Your task to perform on an android device: toggle data saver in the chrome app Image 0: 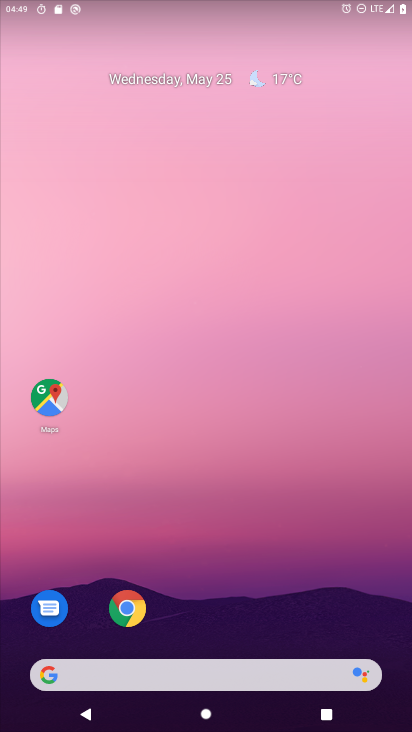
Step 0: click (123, 600)
Your task to perform on an android device: toggle data saver in the chrome app Image 1: 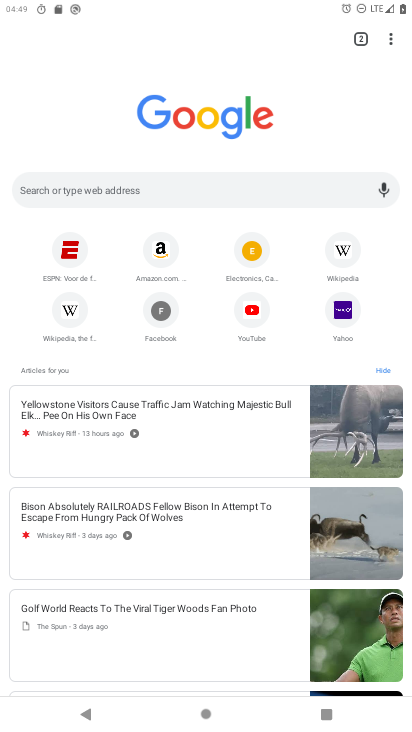
Step 1: click (398, 30)
Your task to perform on an android device: toggle data saver in the chrome app Image 2: 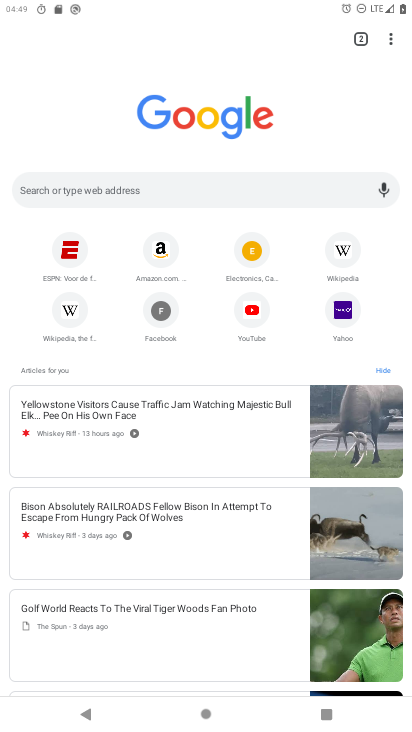
Step 2: drag from (394, 38) to (272, 325)
Your task to perform on an android device: toggle data saver in the chrome app Image 3: 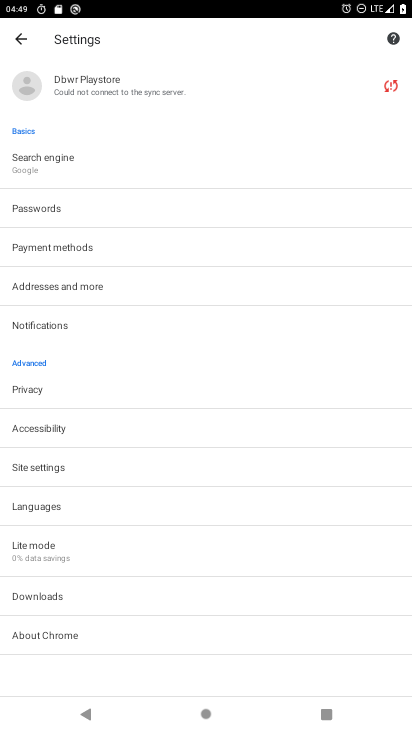
Step 3: click (87, 553)
Your task to perform on an android device: toggle data saver in the chrome app Image 4: 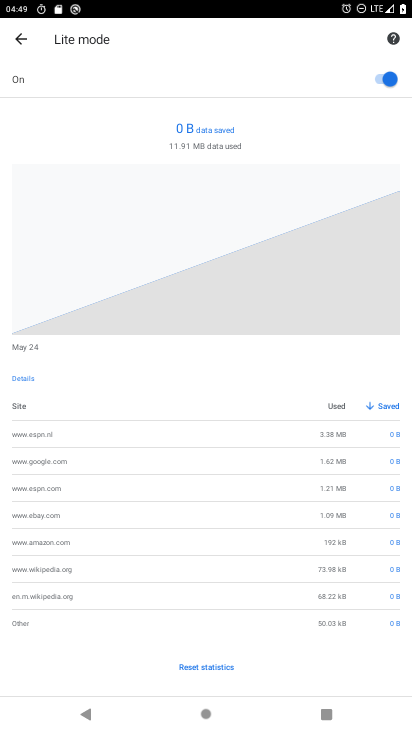
Step 4: click (388, 72)
Your task to perform on an android device: toggle data saver in the chrome app Image 5: 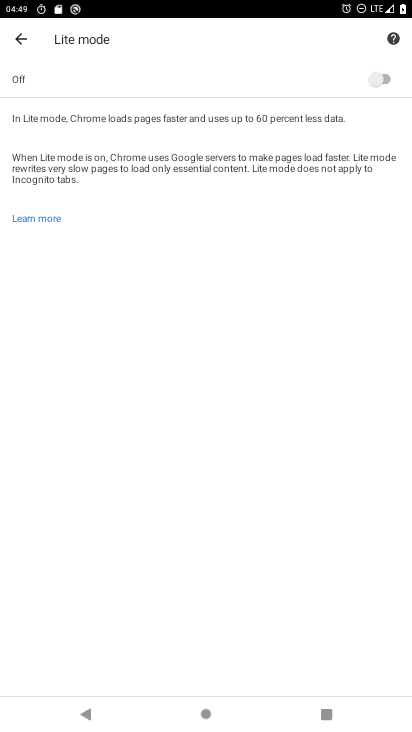
Step 5: task complete